Your task to perform on an android device: check out phone information Image 0: 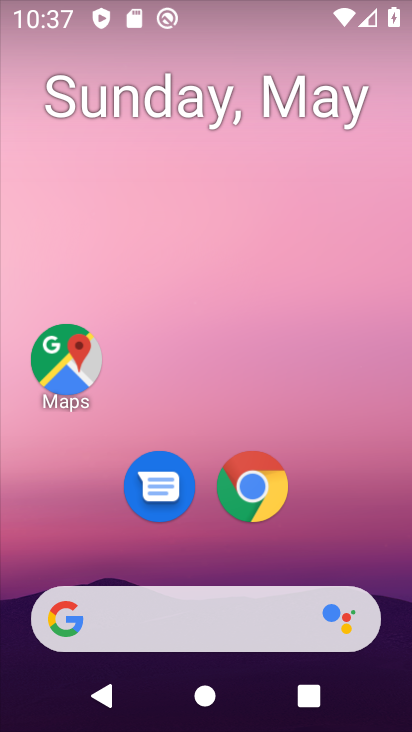
Step 0: click (275, 152)
Your task to perform on an android device: check out phone information Image 1: 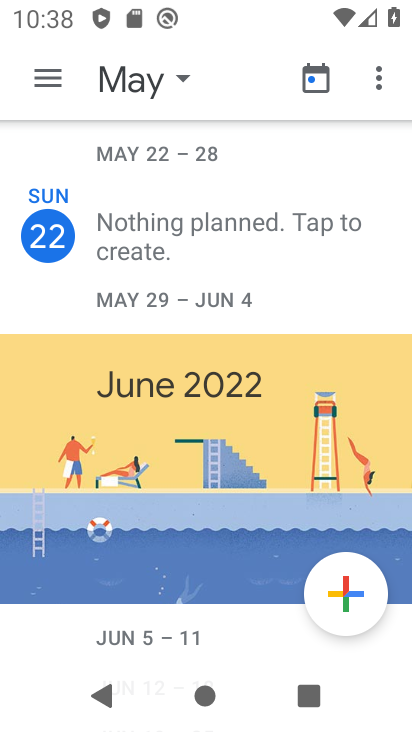
Step 1: press home button
Your task to perform on an android device: check out phone information Image 2: 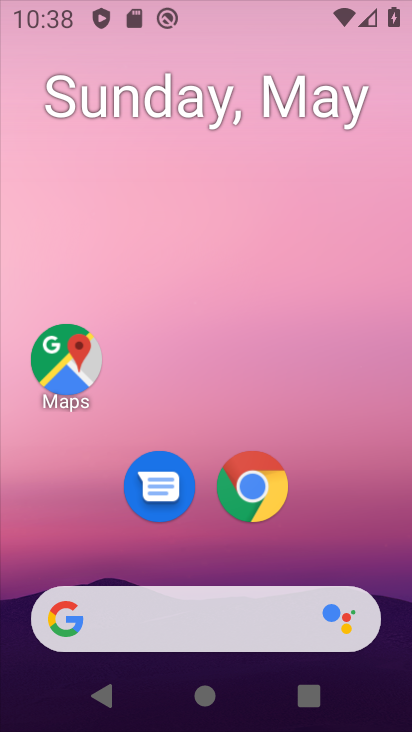
Step 2: drag from (283, 545) to (268, 104)
Your task to perform on an android device: check out phone information Image 3: 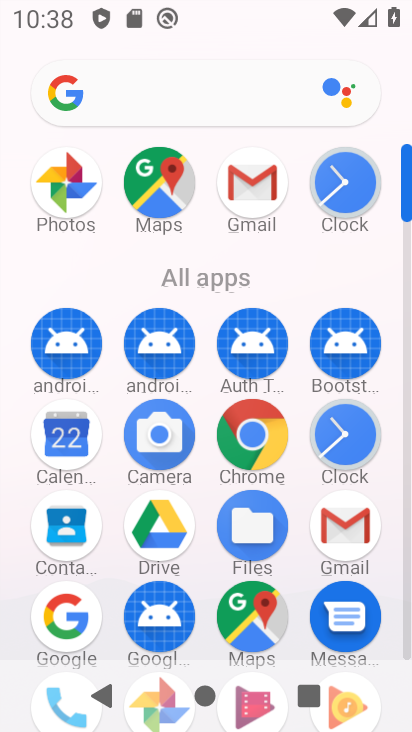
Step 3: drag from (290, 632) to (309, 280)
Your task to perform on an android device: check out phone information Image 4: 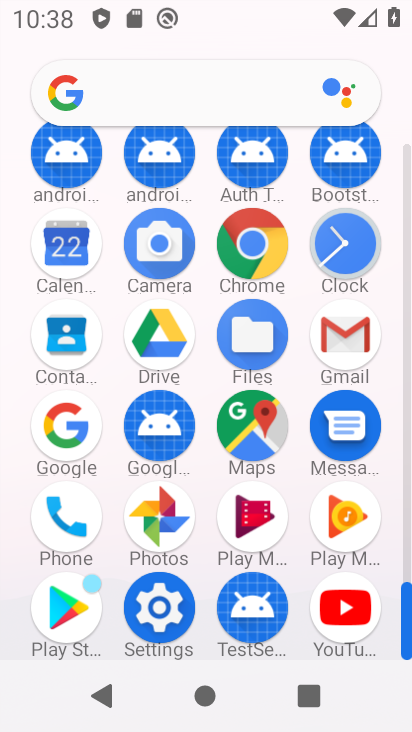
Step 4: click (365, 618)
Your task to perform on an android device: check out phone information Image 5: 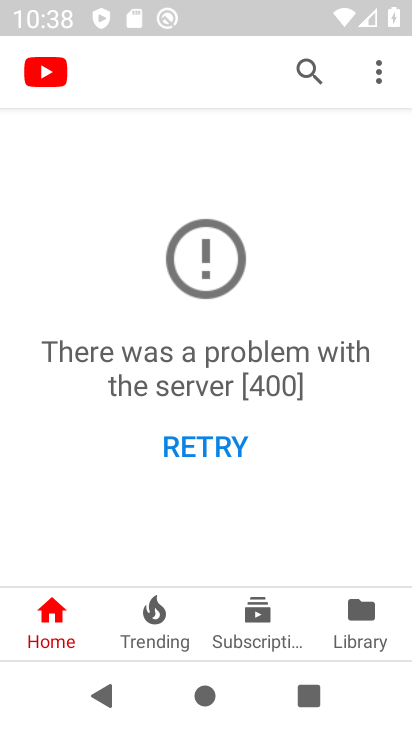
Step 5: press home button
Your task to perform on an android device: check out phone information Image 6: 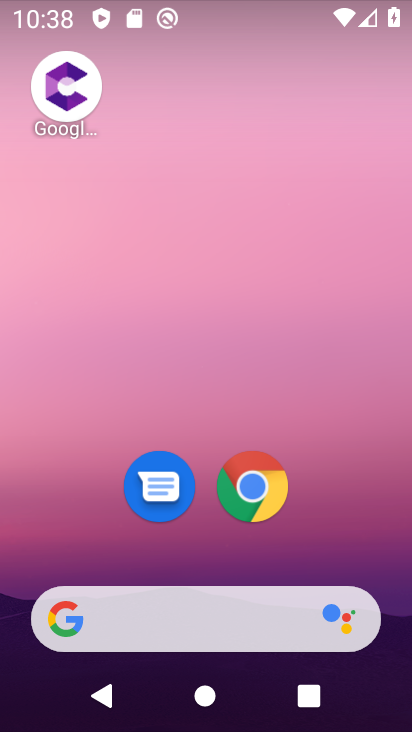
Step 6: drag from (261, 537) to (240, 157)
Your task to perform on an android device: check out phone information Image 7: 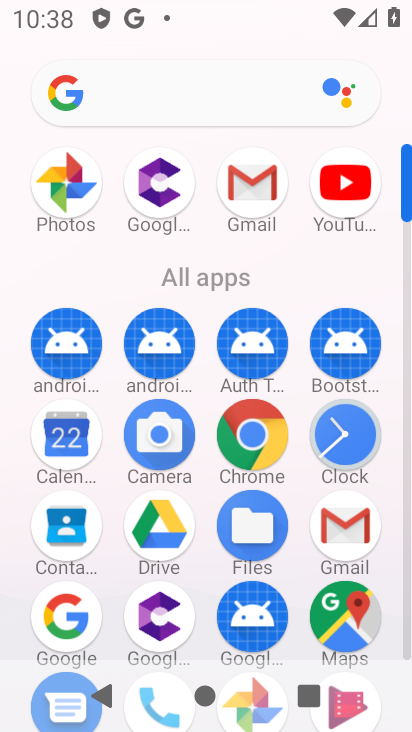
Step 7: drag from (221, 631) to (266, 205)
Your task to perform on an android device: check out phone information Image 8: 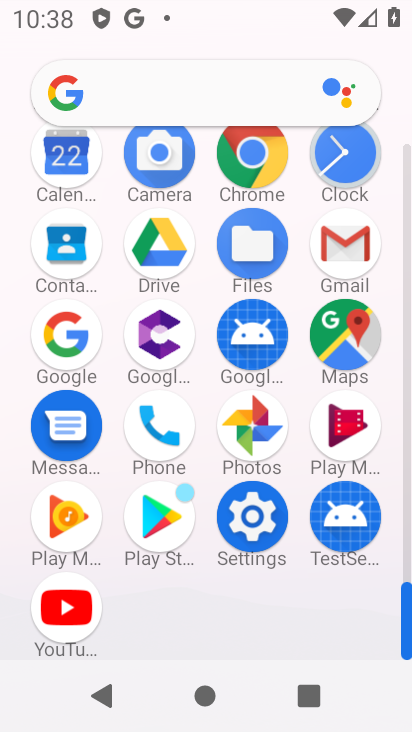
Step 8: click (234, 518)
Your task to perform on an android device: check out phone information Image 9: 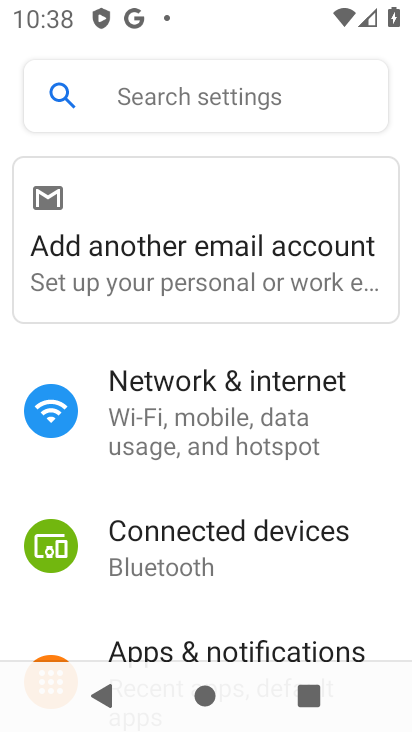
Step 9: drag from (217, 540) to (233, 209)
Your task to perform on an android device: check out phone information Image 10: 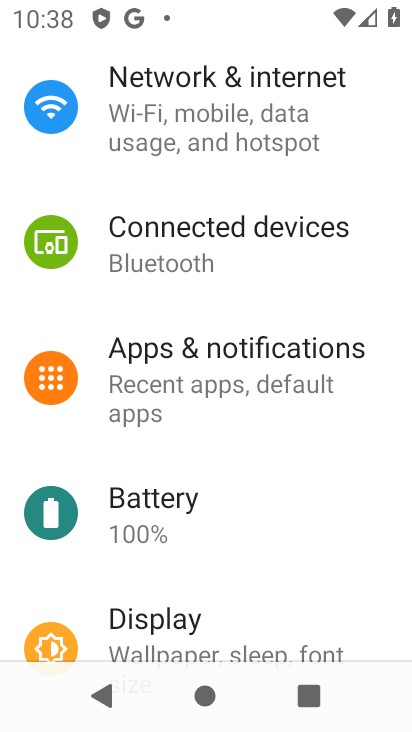
Step 10: drag from (199, 514) to (198, 198)
Your task to perform on an android device: check out phone information Image 11: 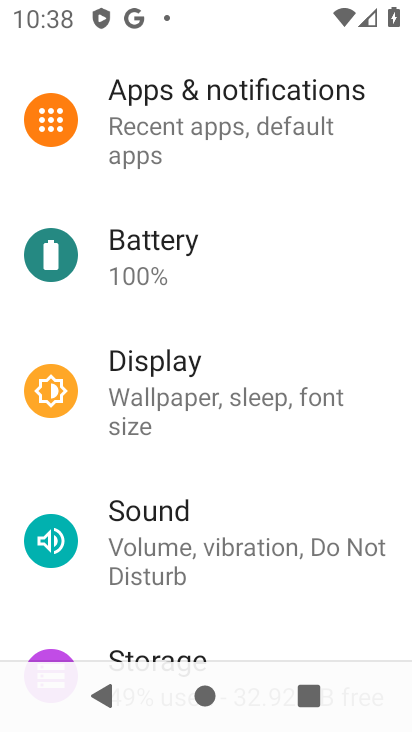
Step 11: drag from (180, 576) to (209, 212)
Your task to perform on an android device: check out phone information Image 12: 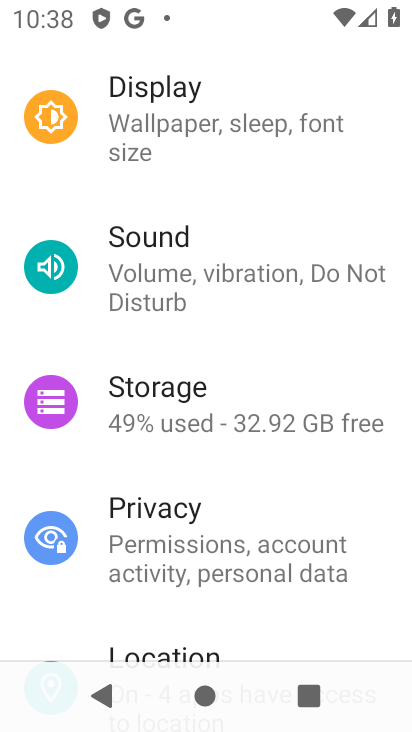
Step 12: drag from (186, 551) to (229, 266)
Your task to perform on an android device: check out phone information Image 13: 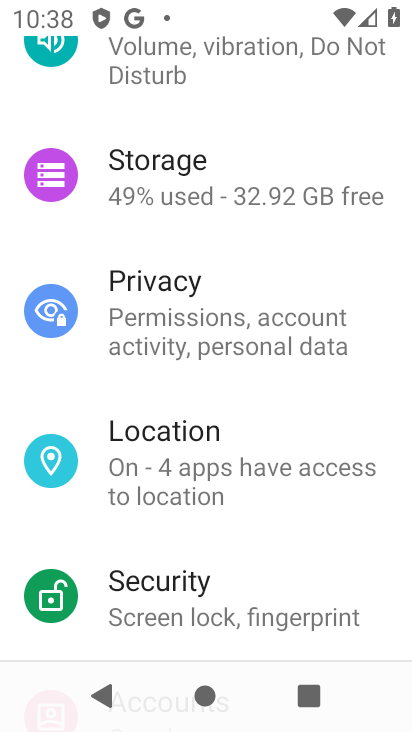
Step 13: drag from (161, 561) to (170, 364)
Your task to perform on an android device: check out phone information Image 14: 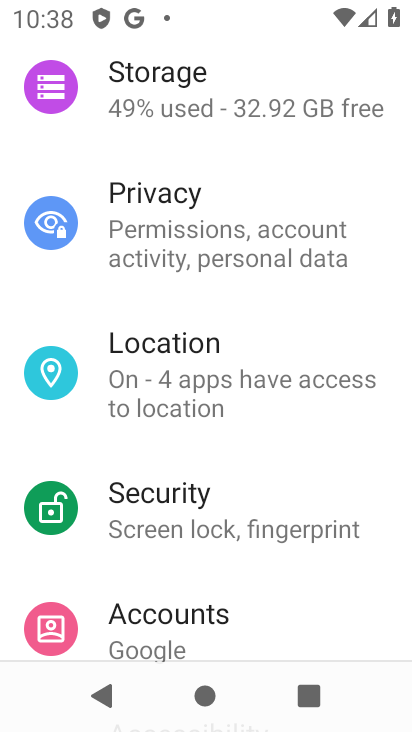
Step 14: drag from (168, 547) to (211, 277)
Your task to perform on an android device: check out phone information Image 15: 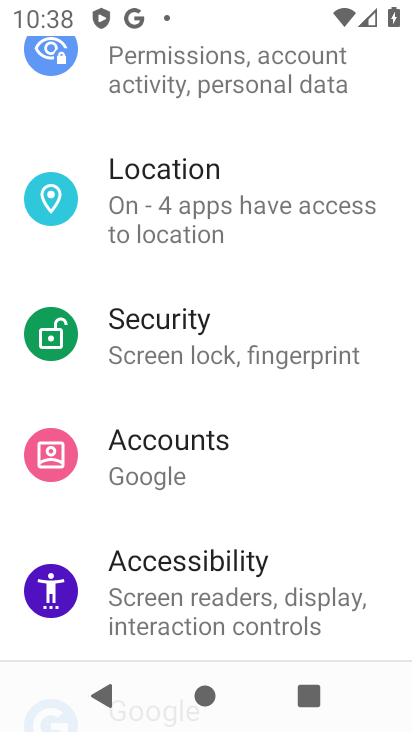
Step 15: drag from (196, 540) to (251, 215)
Your task to perform on an android device: check out phone information Image 16: 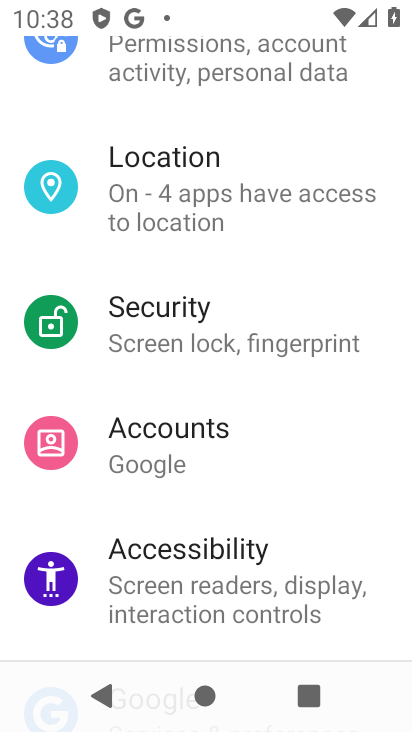
Step 16: click (189, 383)
Your task to perform on an android device: check out phone information Image 17: 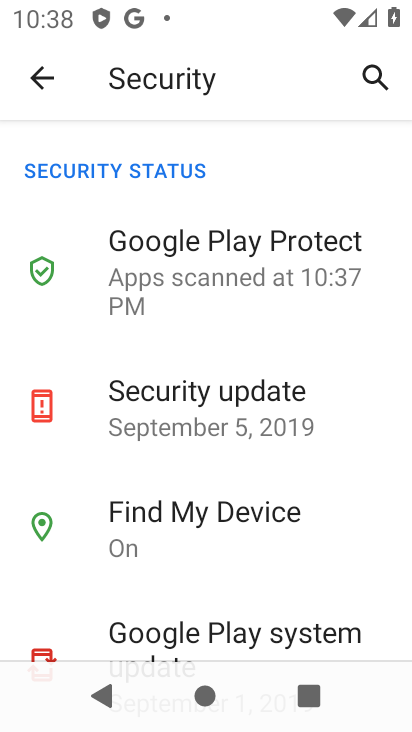
Step 17: click (25, 85)
Your task to perform on an android device: check out phone information Image 18: 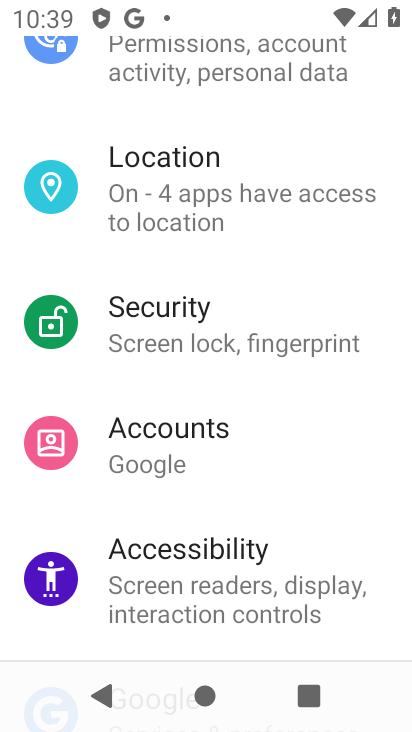
Step 18: drag from (187, 505) to (200, 260)
Your task to perform on an android device: check out phone information Image 19: 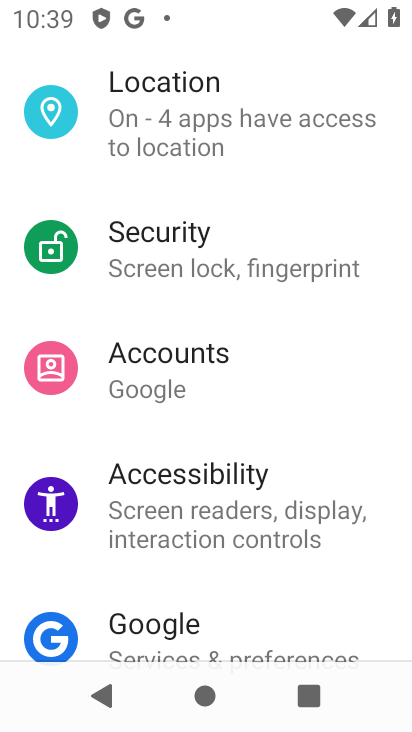
Step 19: drag from (185, 573) to (258, 255)
Your task to perform on an android device: check out phone information Image 20: 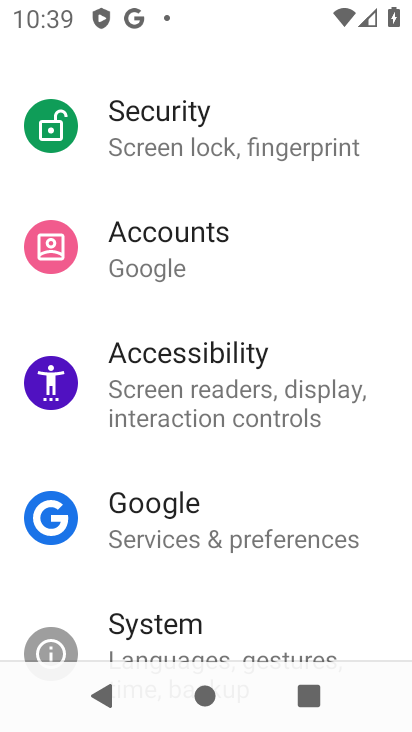
Step 20: drag from (224, 586) to (265, 292)
Your task to perform on an android device: check out phone information Image 21: 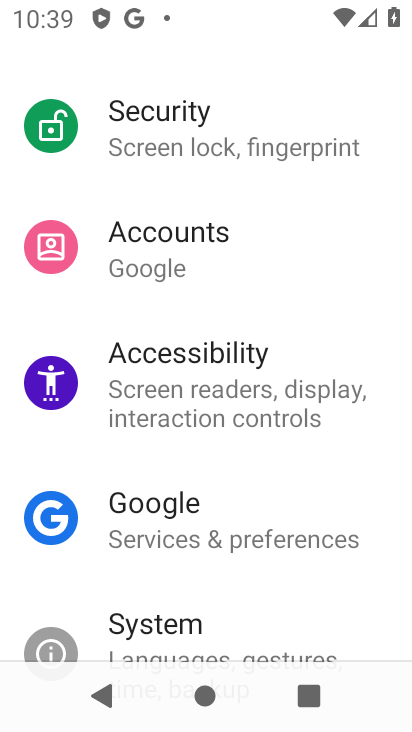
Step 21: drag from (258, 587) to (284, 278)
Your task to perform on an android device: check out phone information Image 22: 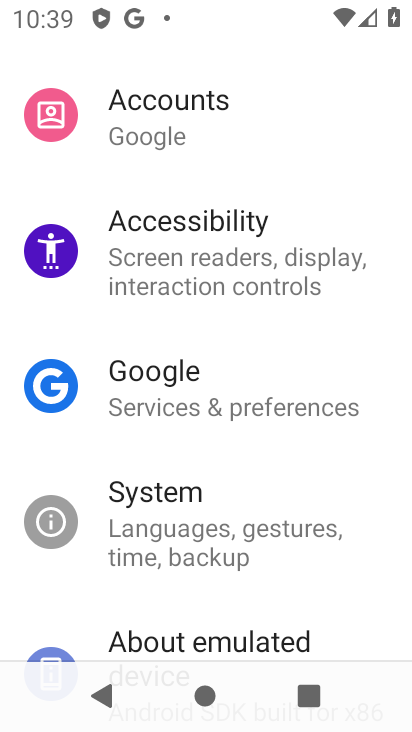
Step 22: drag from (167, 577) to (198, 241)
Your task to perform on an android device: check out phone information Image 23: 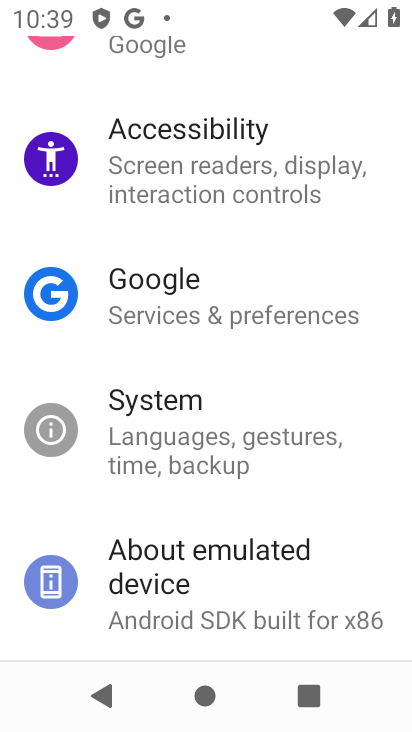
Step 23: click (186, 575)
Your task to perform on an android device: check out phone information Image 24: 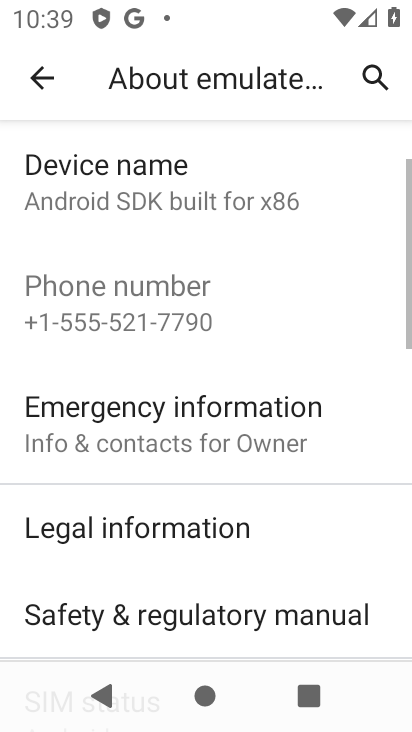
Step 24: task complete